Your task to perform on an android device: turn on sleep mode Image 0: 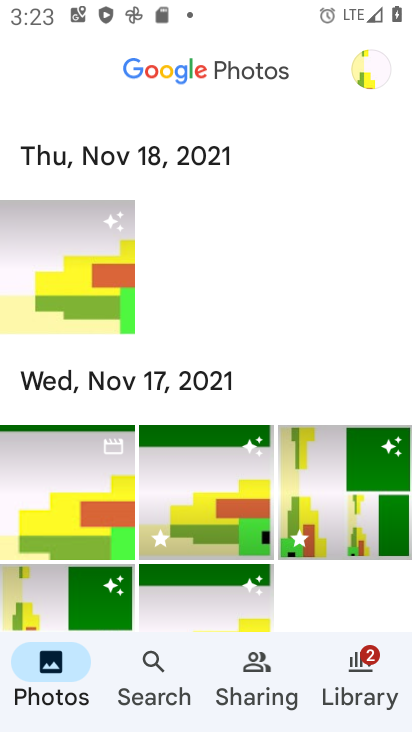
Step 0: press home button
Your task to perform on an android device: turn on sleep mode Image 1: 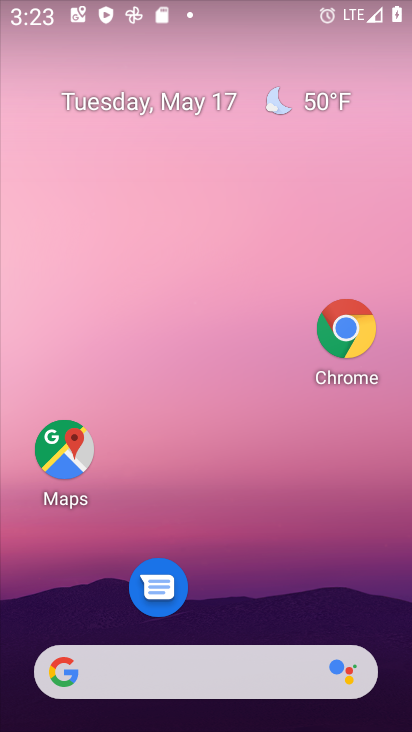
Step 1: drag from (256, 526) to (297, 98)
Your task to perform on an android device: turn on sleep mode Image 2: 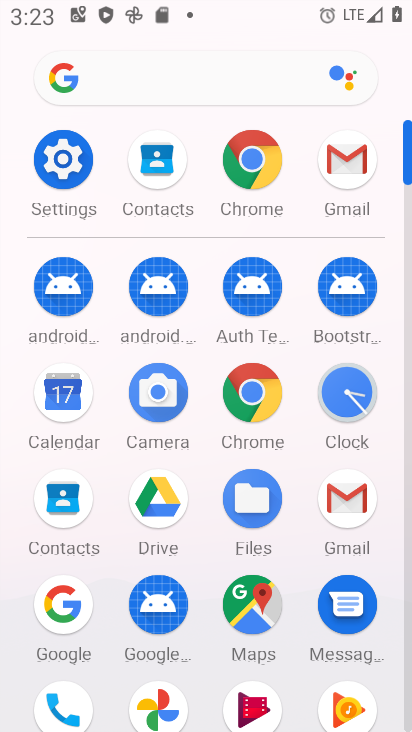
Step 2: click (85, 171)
Your task to perform on an android device: turn on sleep mode Image 3: 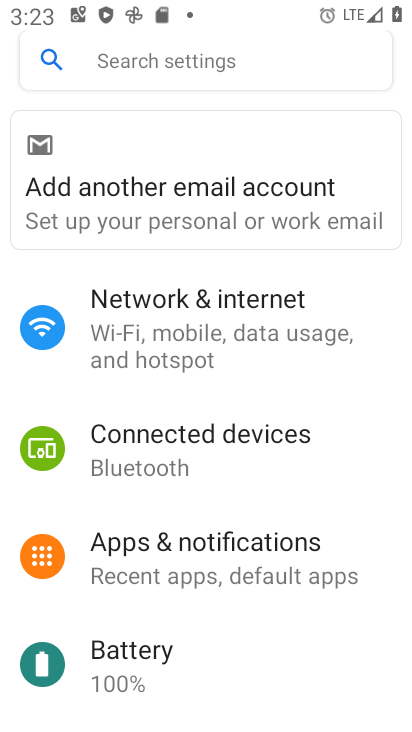
Step 3: drag from (285, 552) to (286, 290)
Your task to perform on an android device: turn on sleep mode Image 4: 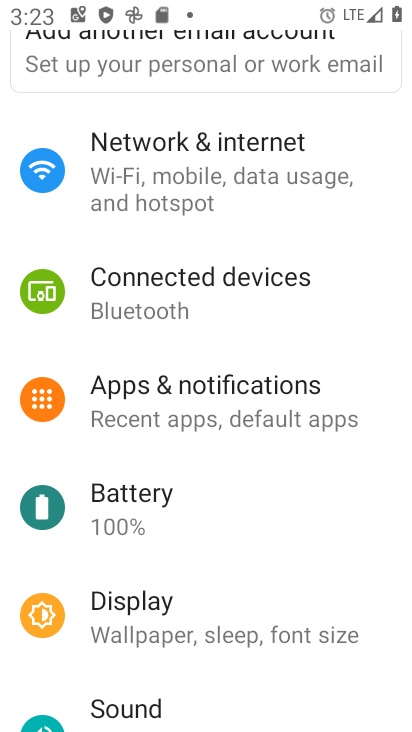
Step 4: click (275, 651)
Your task to perform on an android device: turn on sleep mode Image 5: 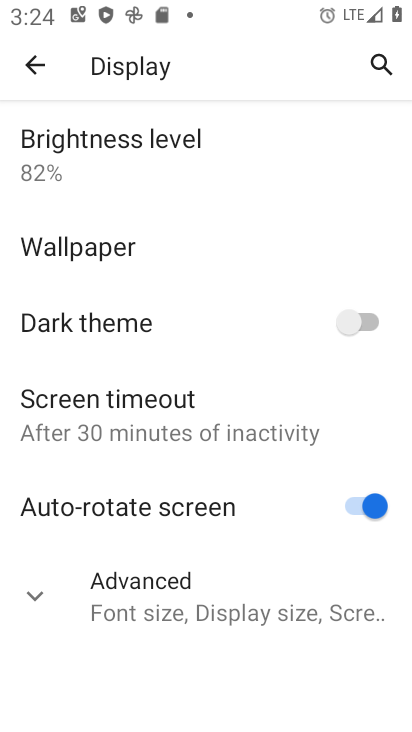
Step 5: click (254, 439)
Your task to perform on an android device: turn on sleep mode Image 6: 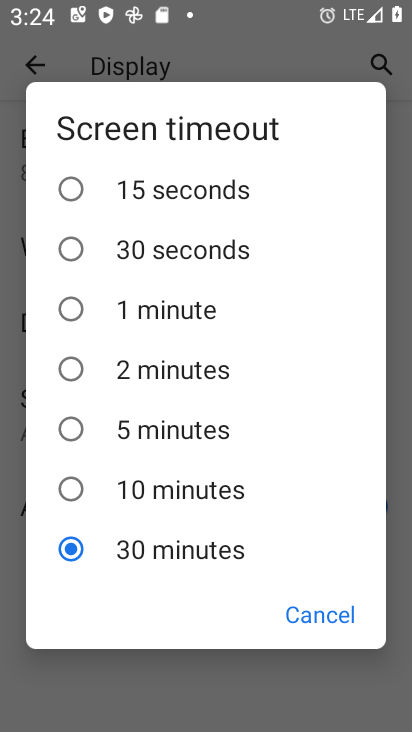
Step 6: click (255, 270)
Your task to perform on an android device: turn on sleep mode Image 7: 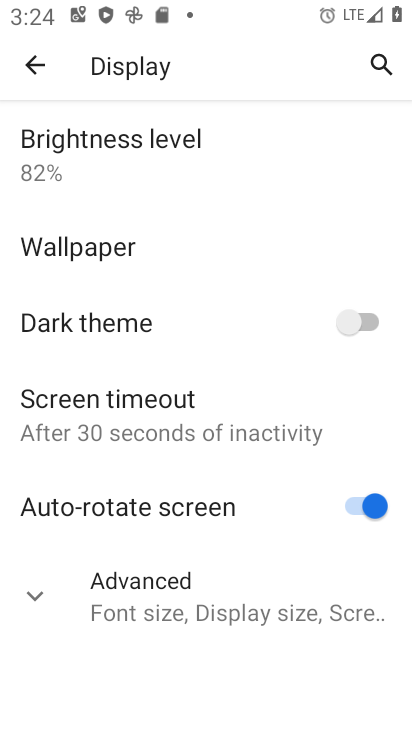
Step 7: task complete